Your task to perform on an android device: empty trash in the gmail app Image 0: 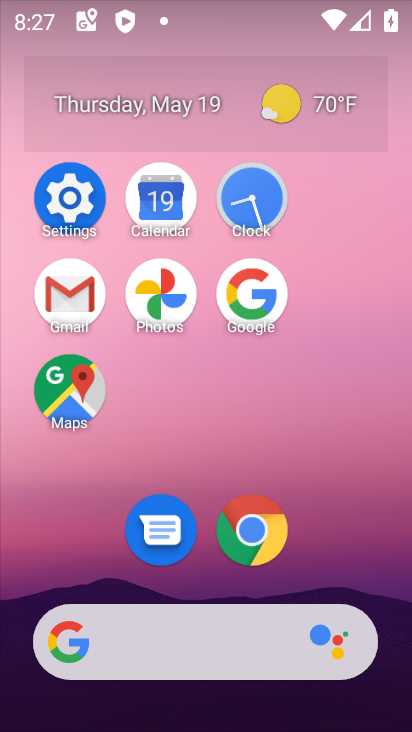
Step 0: click (70, 297)
Your task to perform on an android device: empty trash in the gmail app Image 1: 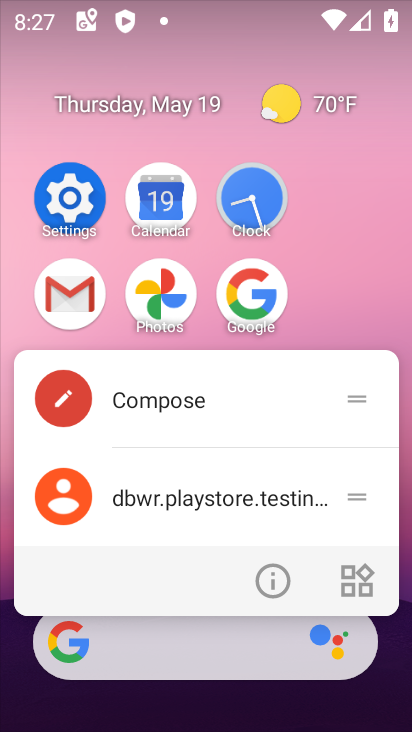
Step 1: click (42, 305)
Your task to perform on an android device: empty trash in the gmail app Image 2: 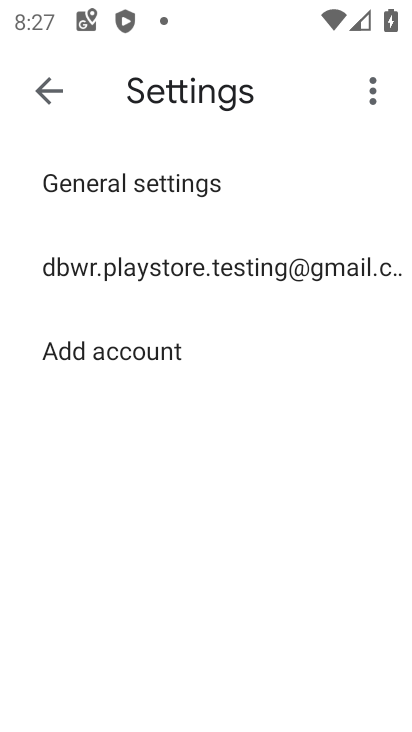
Step 2: click (45, 92)
Your task to perform on an android device: empty trash in the gmail app Image 3: 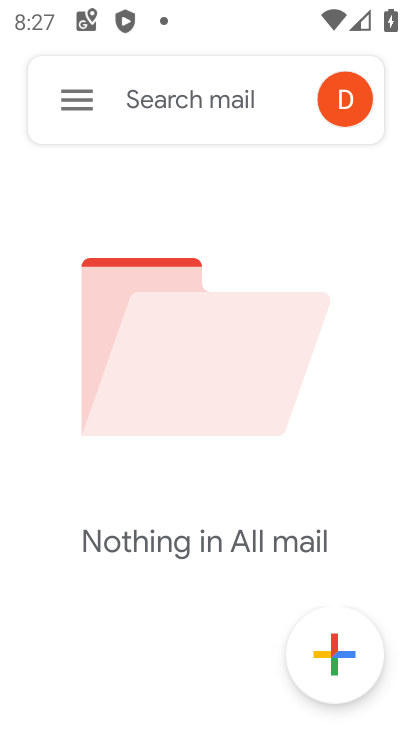
Step 3: click (87, 104)
Your task to perform on an android device: empty trash in the gmail app Image 4: 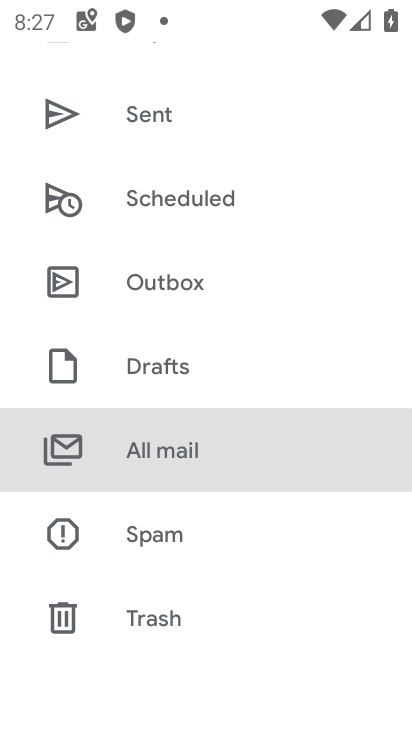
Step 4: drag from (223, 240) to (261, 585)
Your task to perform on an android device: empty trash in the gmail app Image 5: 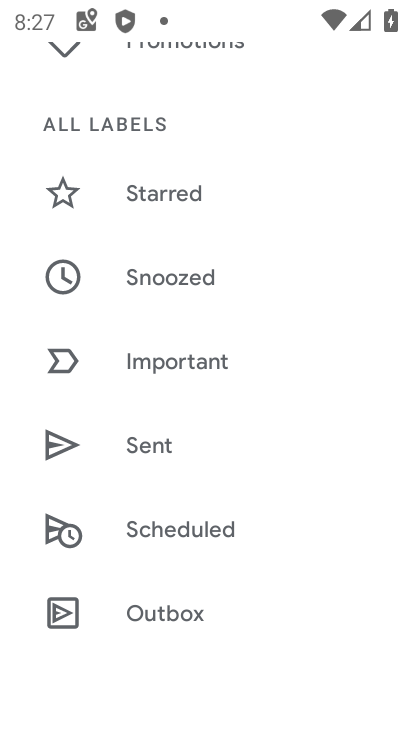
Step 5: drag from (254, 555) to (245, 223)
Your task to perform on an android device: empty trash in the gmail app Image 6: 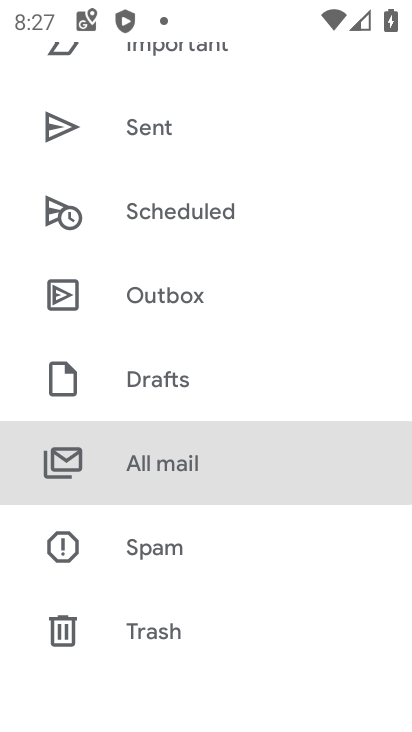
Step 6: click (171, 629)
Your task to perform on an android device: empty trash in the gmail app Image 7: 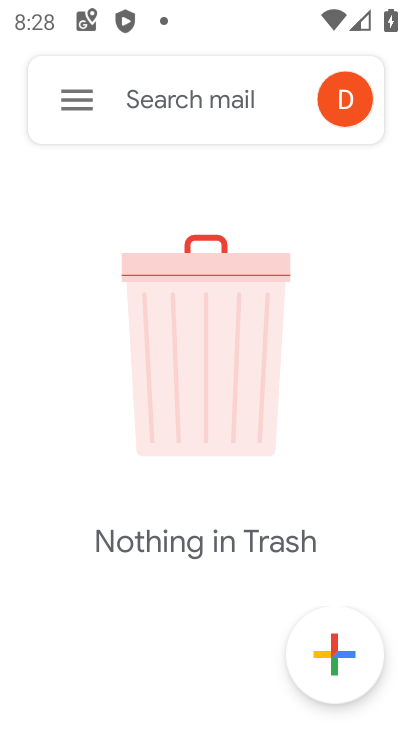
Step 7: task complete